Your task to perform on an android device: Checkthe settings for the Amazon Prime Music app Image 0: 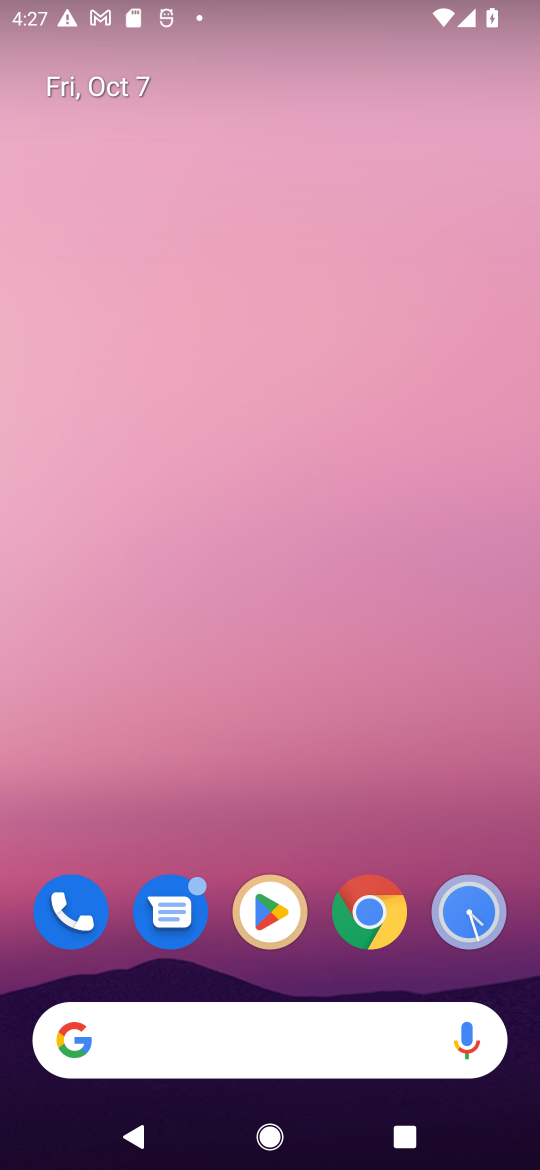
Step 0: drag from (310, 919) to (344, 384)
Your task to perform on an android device: Checkthe settings for the Amazon Prime Music app Image 1: 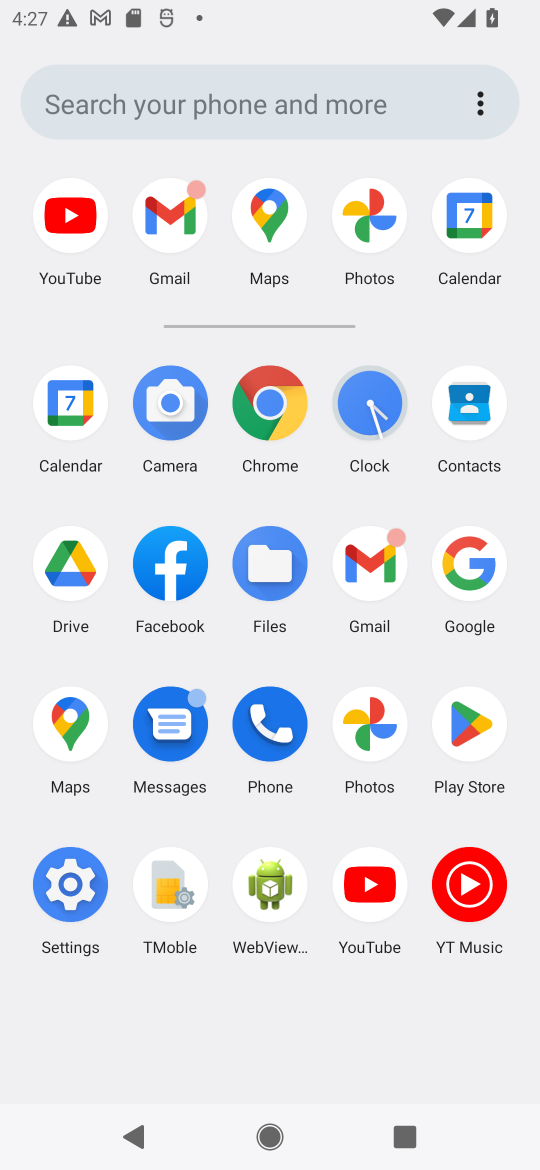
Step 1: click (457, 545)
Your task to perform on an android device: Checkthe settings for the Amazon Prime Music app Image 2: 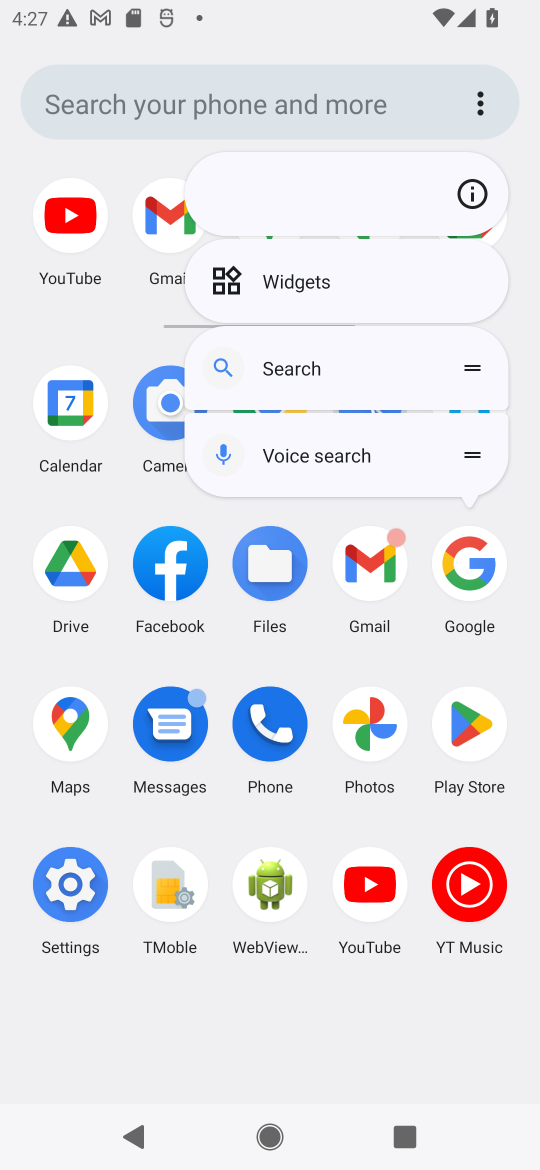
Step 2: click (480, 575)
Your task to perform on an android device: Checkthe settings for the Amazon Prime Music app Image 3: 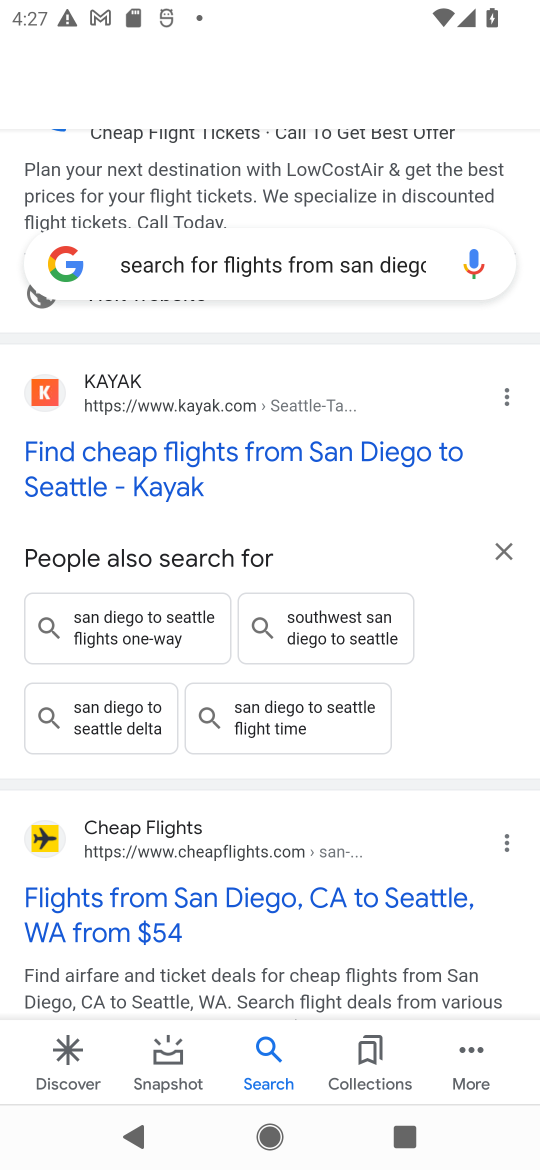
Step 3: click (370, 273)
Your task to perform on an android device: Checkthe settings for the Amazon Prime Music app Image 4: 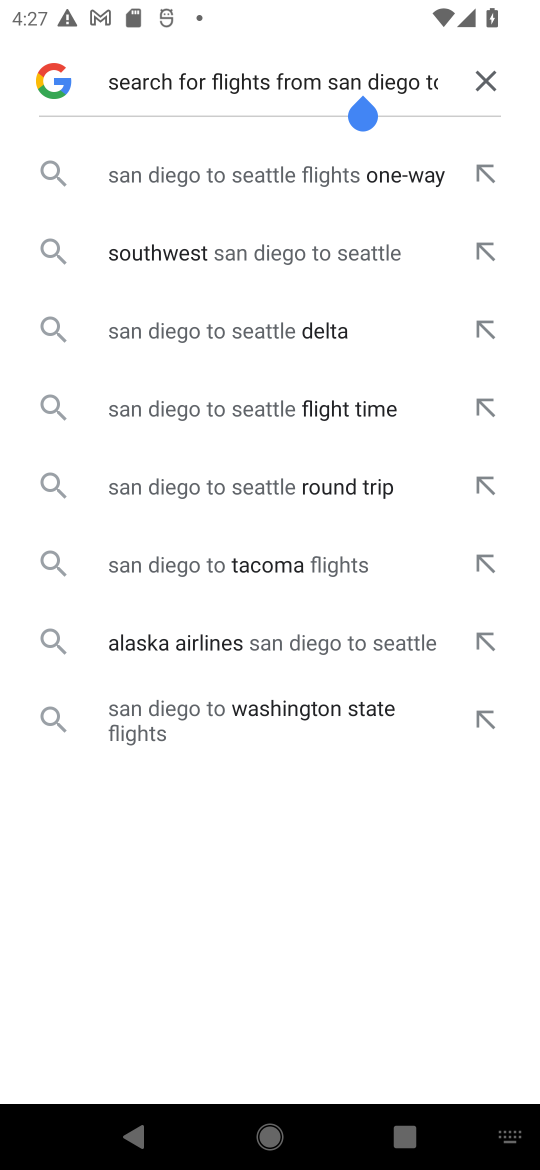
Step 4: click (477, 70)
Your task to perform on an android device: Checkthe settings for the Amazon Prime Music app Image 5: 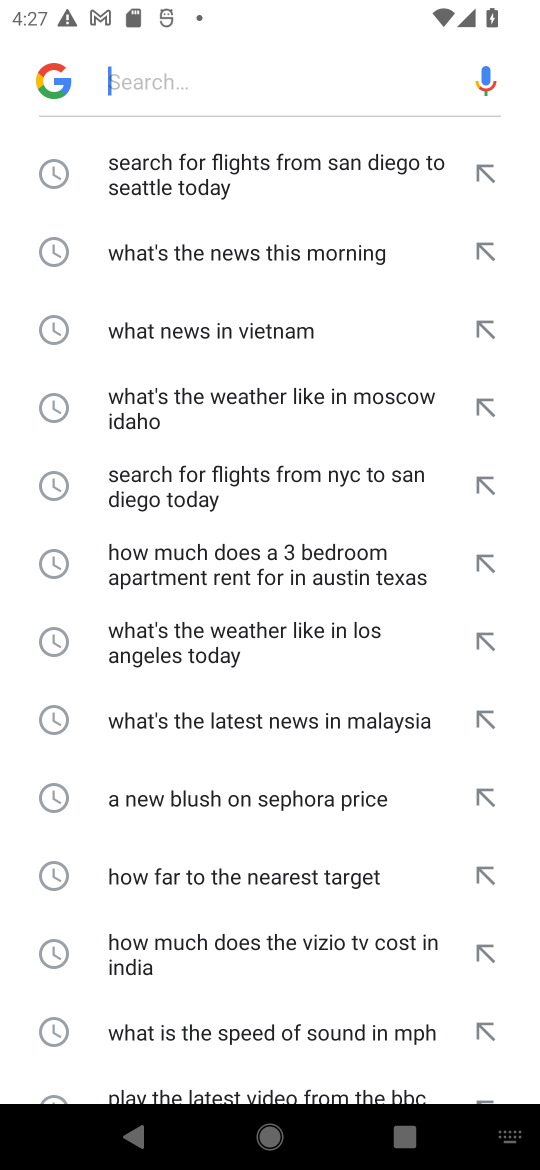
Step 5: press home button
Your task to perform on an android device: Checkthe settings for the Amazon Prime Music app Image 6: 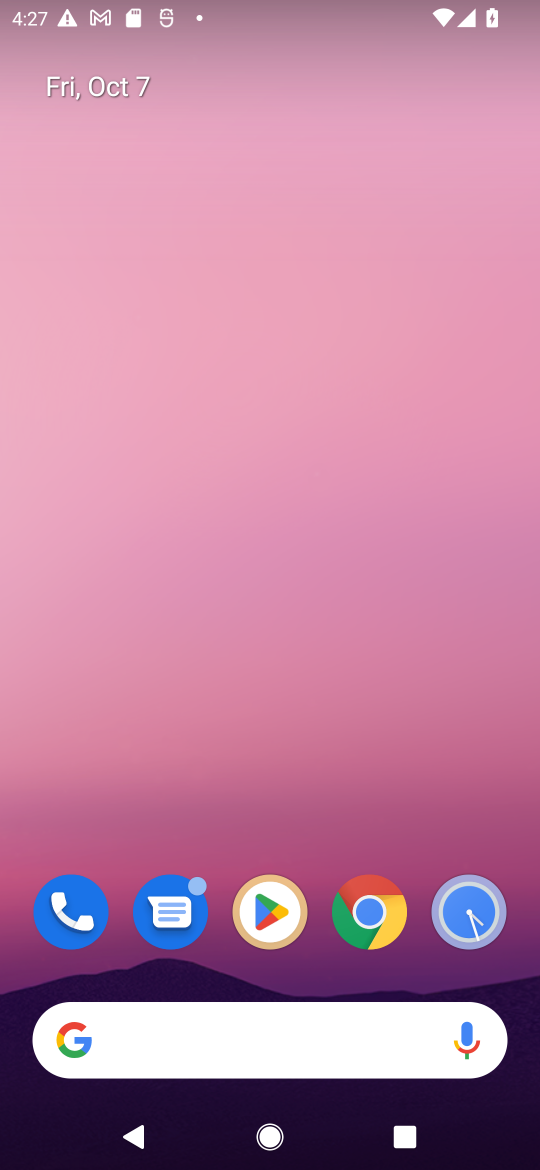
Step 6: drag from (315, 928) to (381, 290)
Your task to perform on an android device: Checkthe settings for the Amazon Prime Music app Image 7: 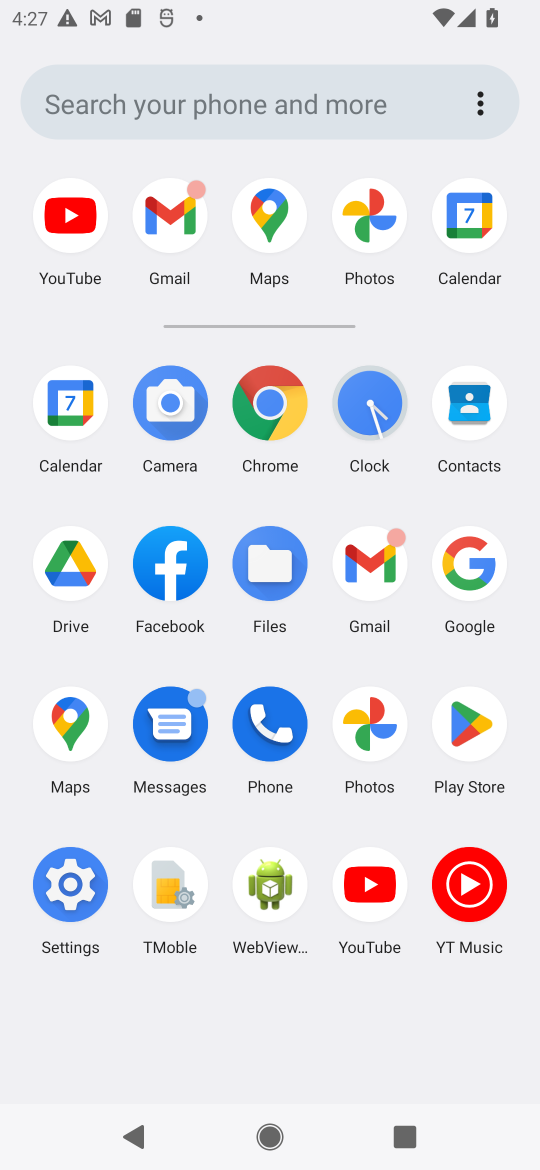
Step 7: click (472, 725)
Your task to perform on an android device: Checkthe settings for the Amazon Prime Music app Image 8: 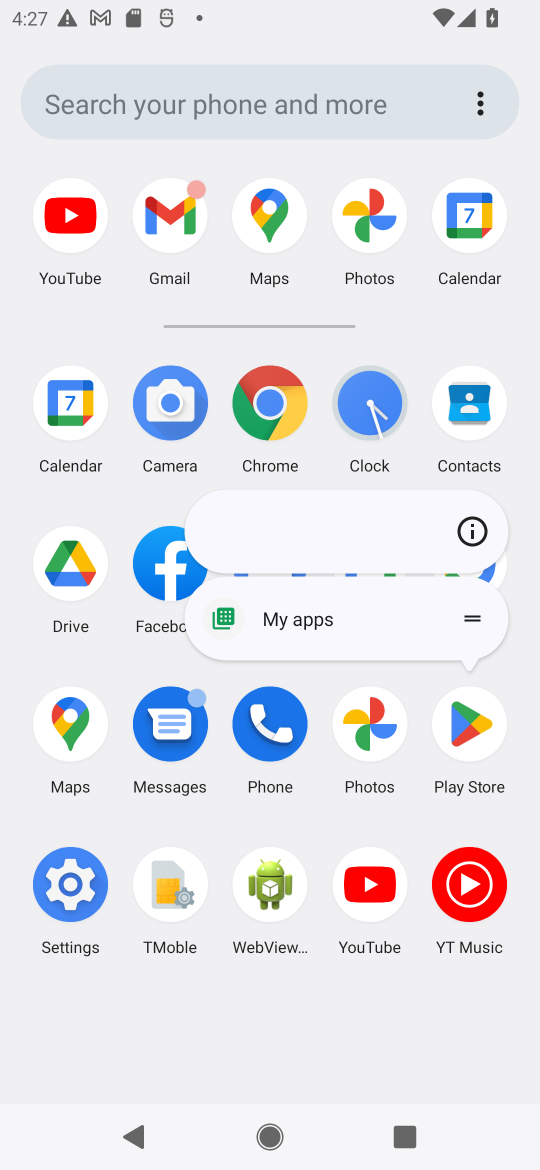
Step 8: click (472, 725)
Your task to perform on an android device: Checkthe settings for the Amazon Prime Music app Image 9: 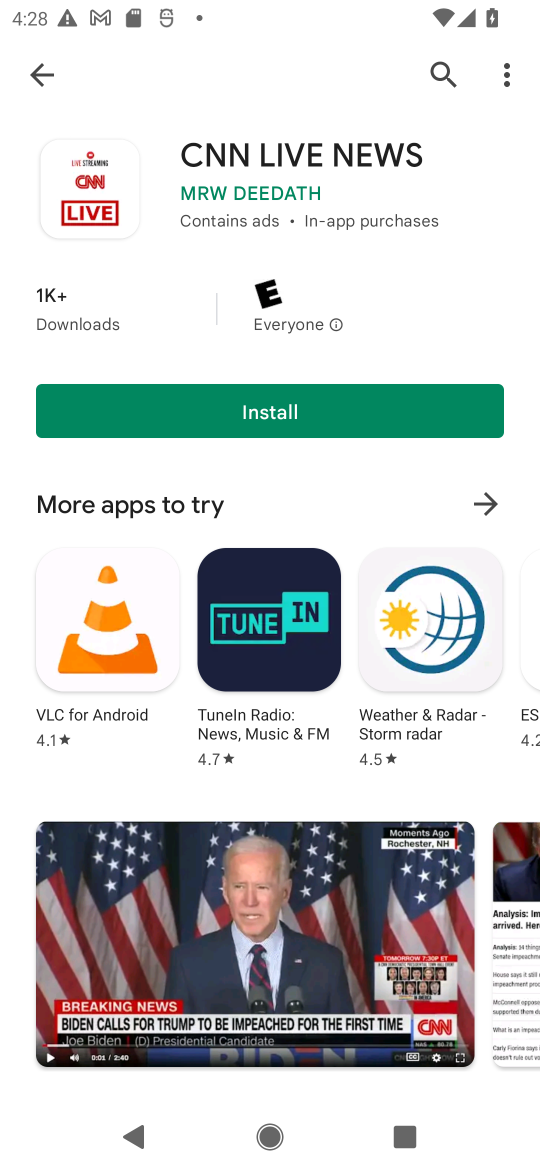
Step 9: click (31, 80)
Your task to perform on an android device: Checkthe settings for the Amazon Prime Music app Image 10: 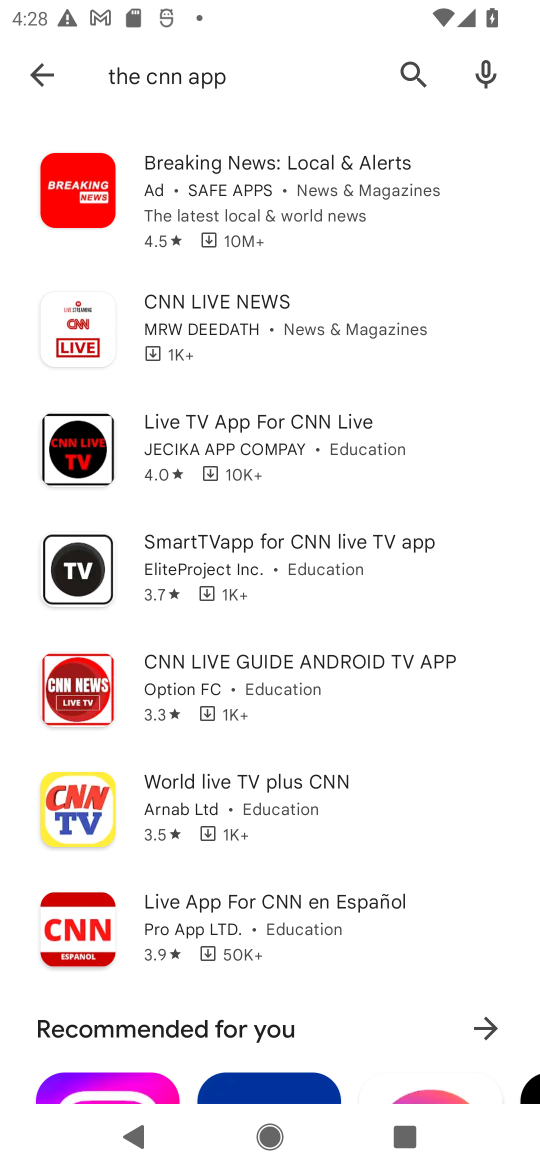
Step 10: click (37, 67)
Your task to perform on an android device: Checkthe settings for the Amazon Prime Music app Image 11: 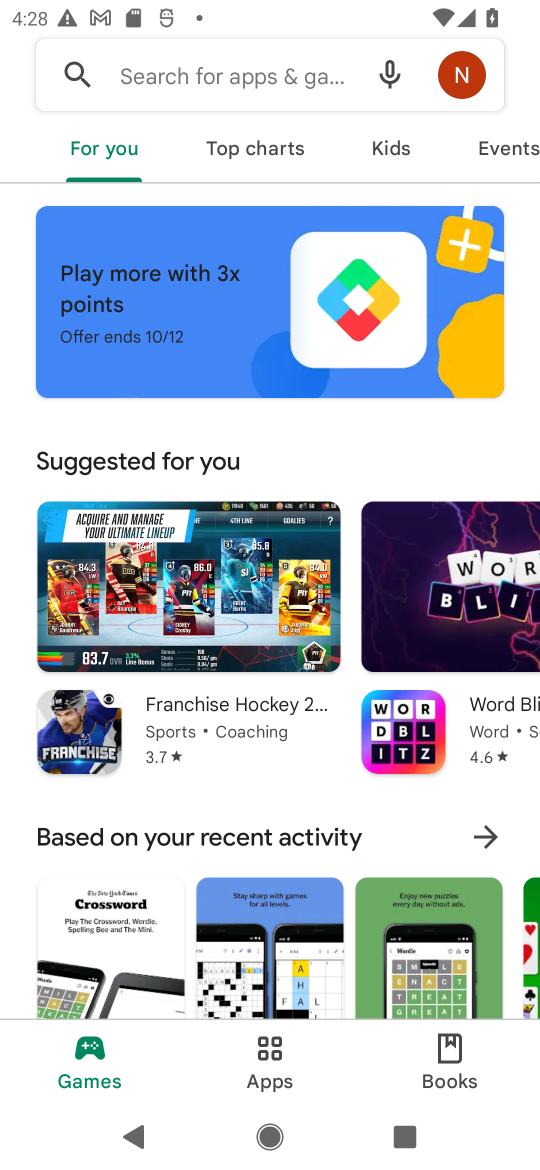
Step 11: click (222, 67)
Your task to perform on an android device: Checkthe settings for the Amazon Prime Music app Image 12: 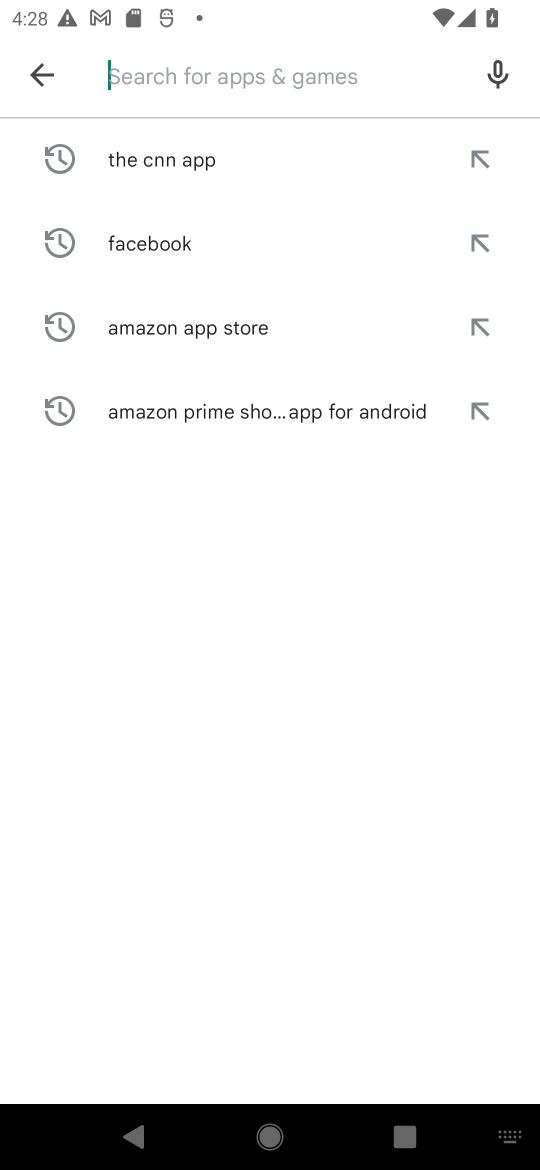
Step 12: type "Amazon Prime Music app "
Your task to perform on an android device: Checkthe settings for the Amazon Prime Music app Image 13: 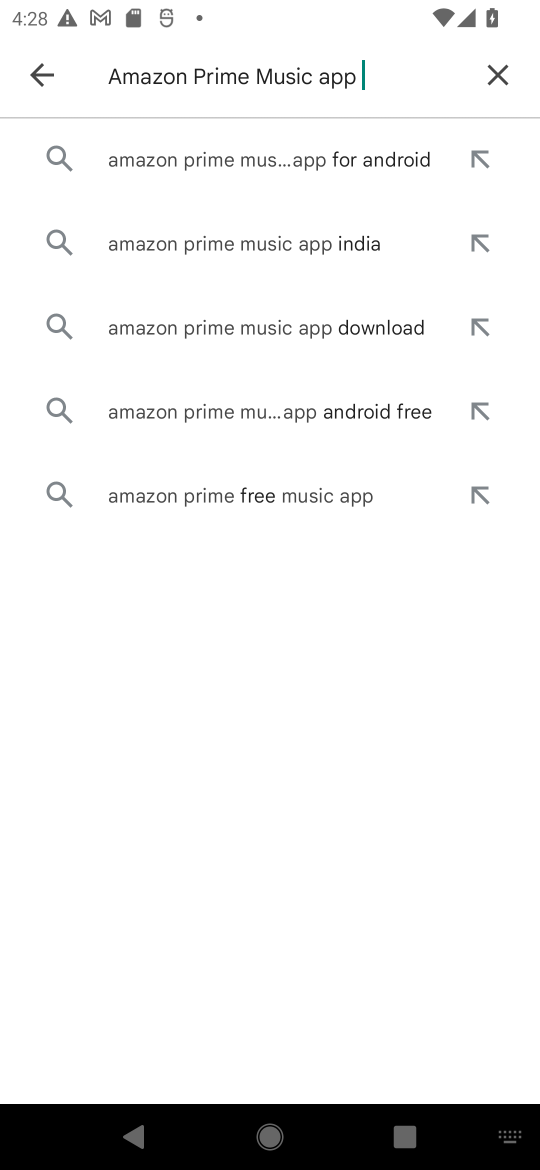
Step 13: click (340, 176)
Your task to perform on an android device: Checkthe settings for the Amazon Prime Music app Image 14: 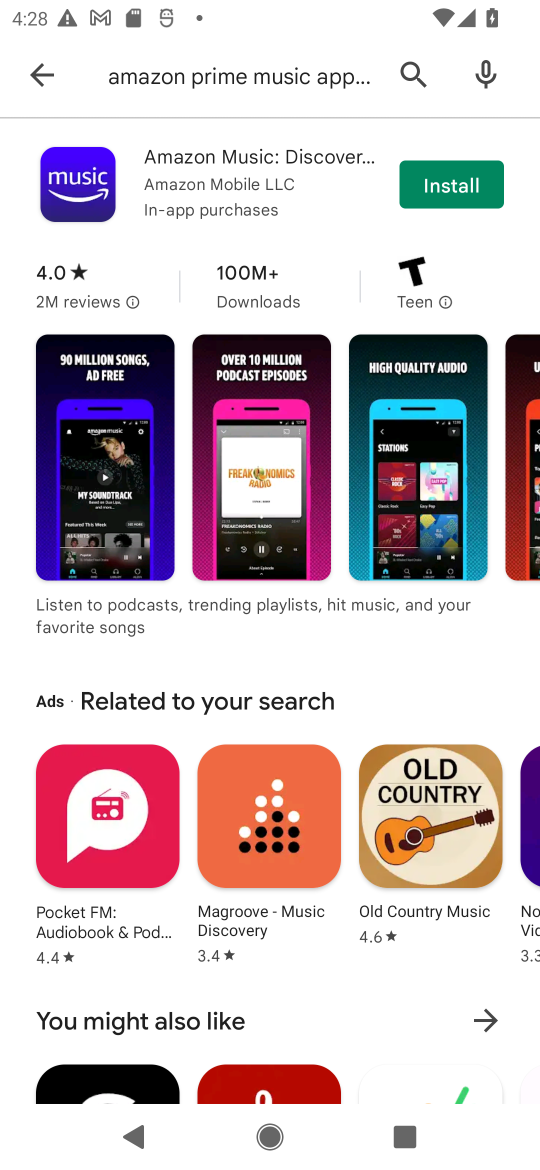
Step 14: click (463, 194)
Your task to perform on an android device: Checkthe settings for the Amazon Prime Music app Image 15: 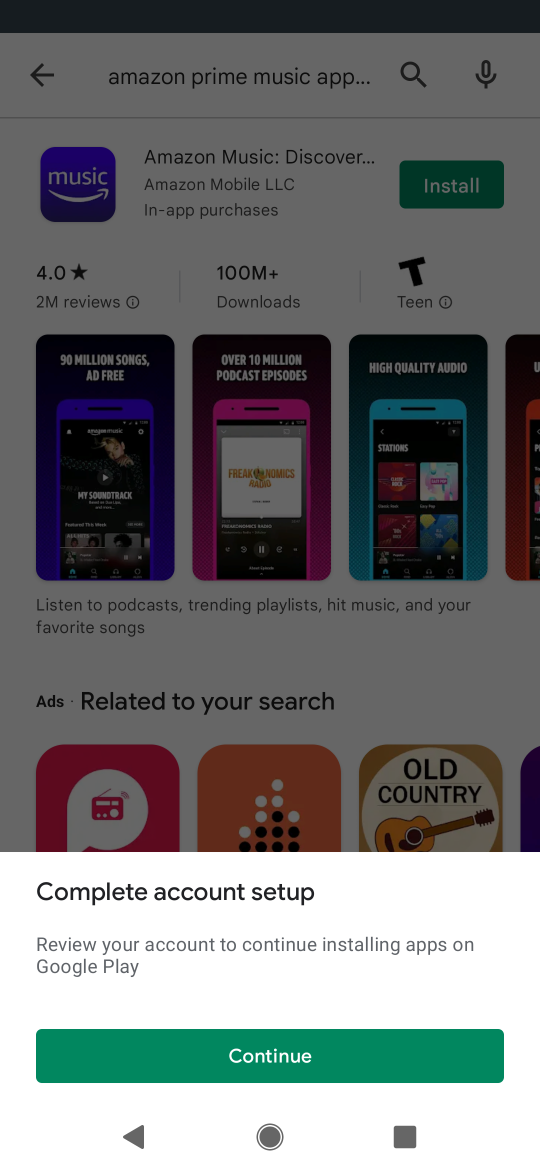
Step 15: task complete